Your task to perform on an android device: change your default location settings in chrome Image 0: 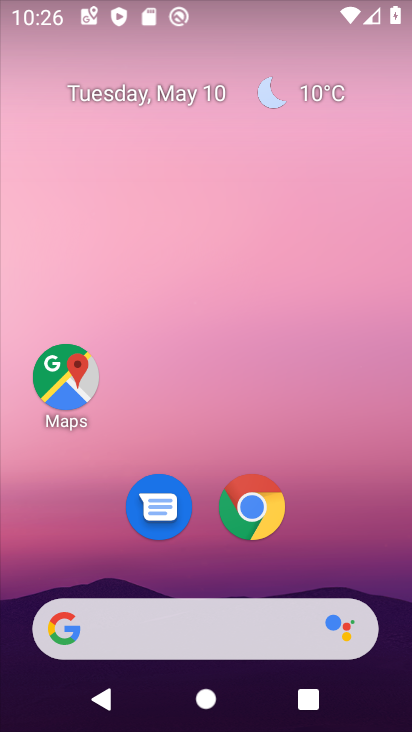
Step 0: click (252, 519)
Your task to perform on an android device: change your default location settings in chrome Image 1: 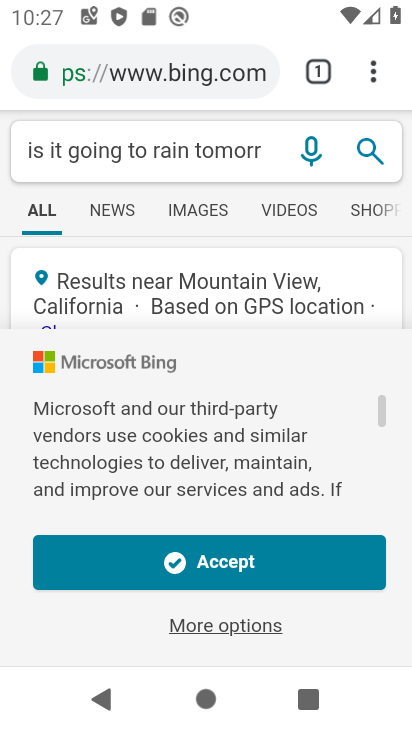
Step 1: drag from (375, 76) to (241, 518)
Your task to perform on an android device: change your default location settings in chrome Image 2: 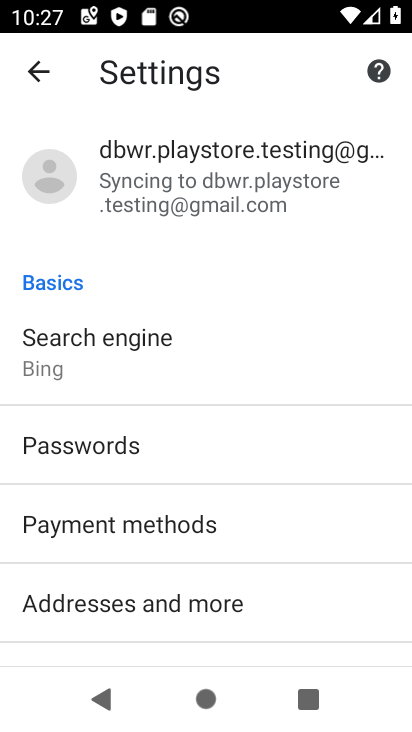
Step 2: drag from (183, 615) to (226, 279)
Your task to perform on an android device: change your default location settings in chrome Image 3: 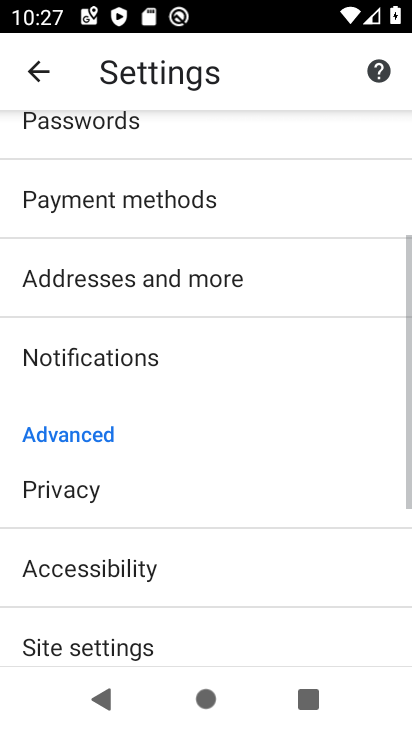
Step 3: drag from (230, 593) to (227, 314)
Your task to perform on an android device: change your default location settings in chrome Image 4: 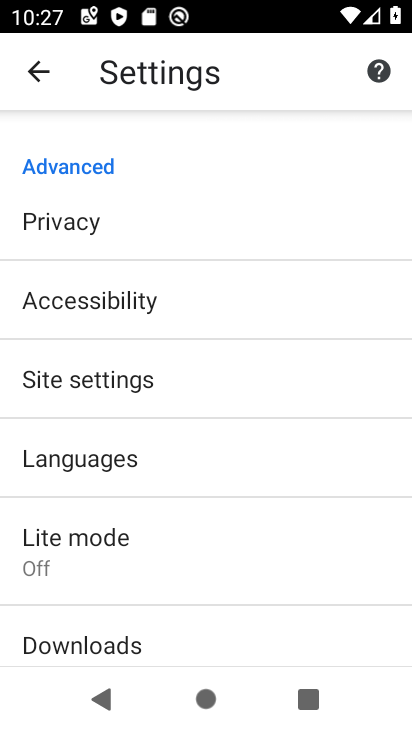
Step 4: click (120, 389)
Your task to perform on an android device: change your default location settings in chrome Image 5: 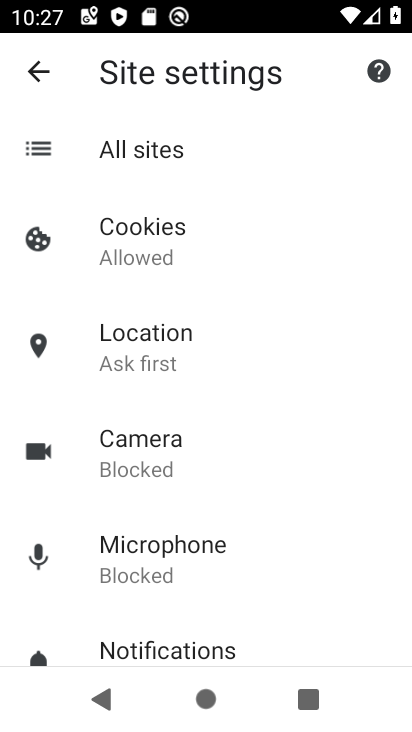
Step 5: click (229, 335)
Your task to perform on an android device: change your default location settings in chrome Image 6: 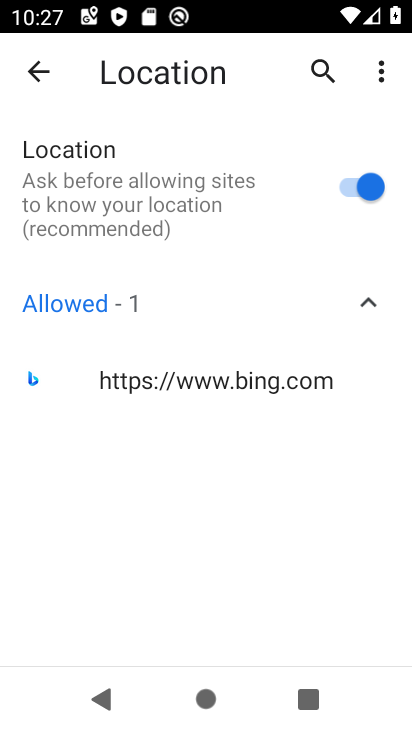
Step 6: click (370, 177)
Your task to perform on an android device: change your default location settings in chrome Image 7: 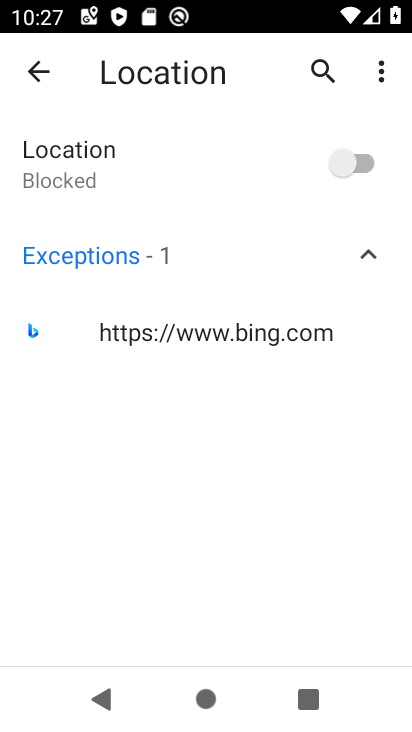
Step 7: task complete